Your task to perform on an android device: Clear the shopping cart on bestbuy.com. Add "razer blackwidow" to the cart on bestbuy.com, then select checkout. Image 0: 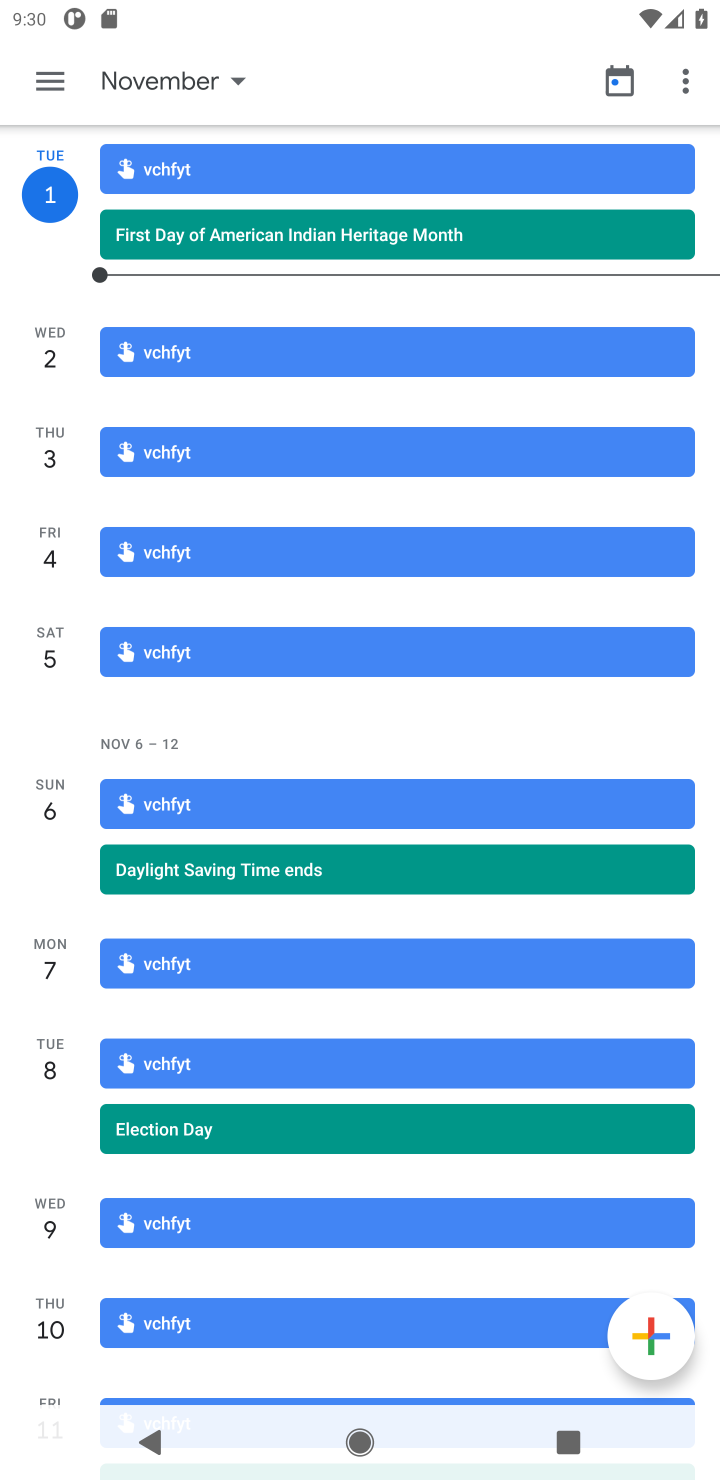
Step 0: press home button
Your task to perform on an android device: Clear the shopping cart on bestbuy.com. Add "razer blackwidow" to the cart on bestbuy.com, then select checkout. Image 1: 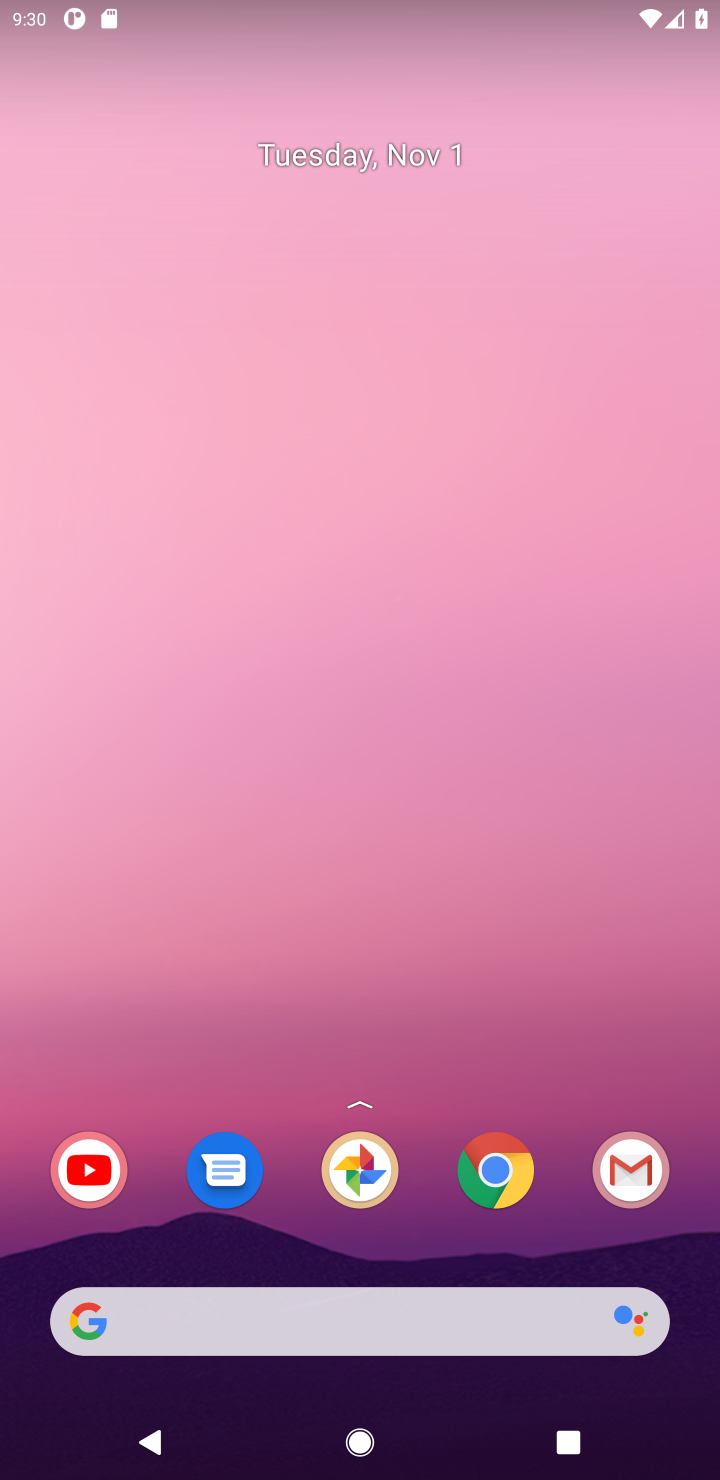
Step 1: click (493, 1177)
Your task to perform on an android device: Clear the shopping cart on bestbuy.com. Add "razer blackwidow" to the cart on bestbuy.com, then select checkout. Image 2: 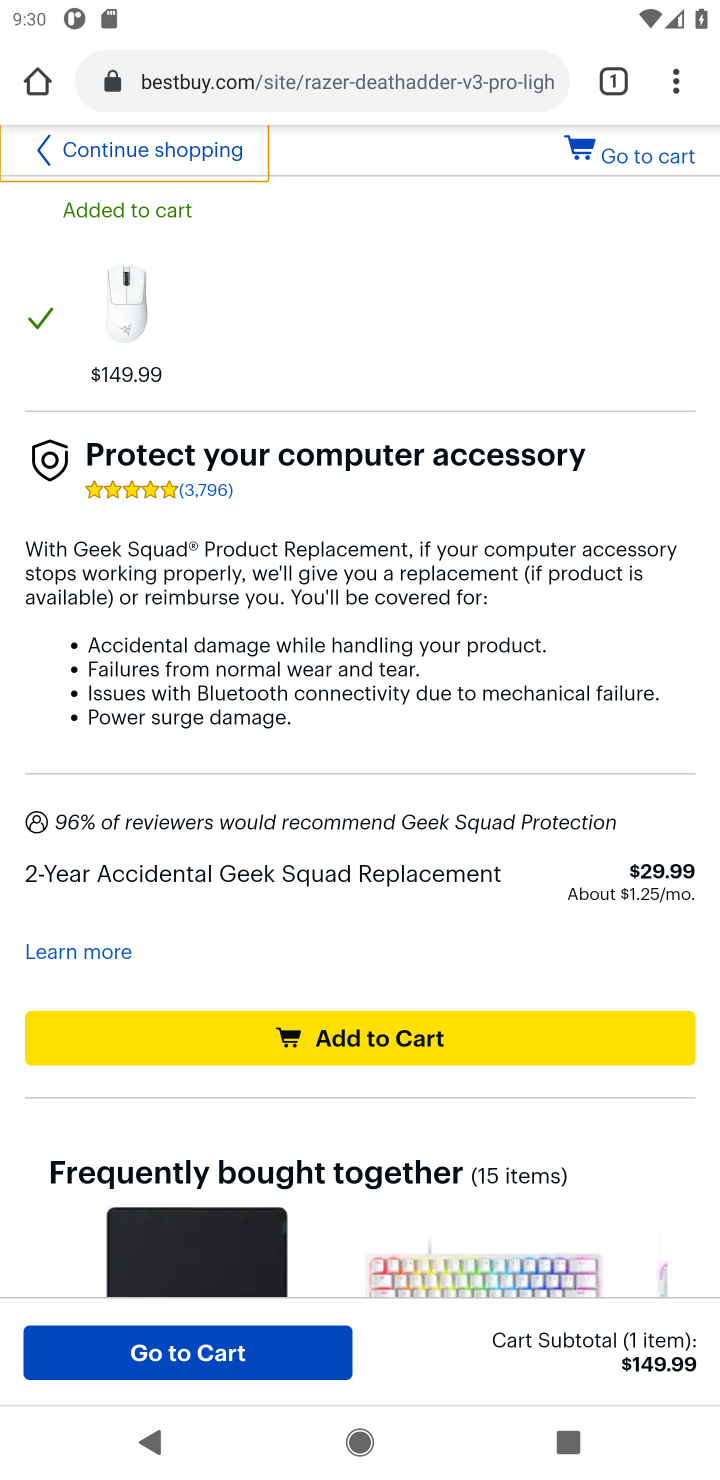
Step 2: click (335, 77)
Your task to perform on an android device: Clear the shopping cart on bestbuy.com. Add "razer blackwidow" to the cart on bestbuy.com, then select checkout. Image 3: 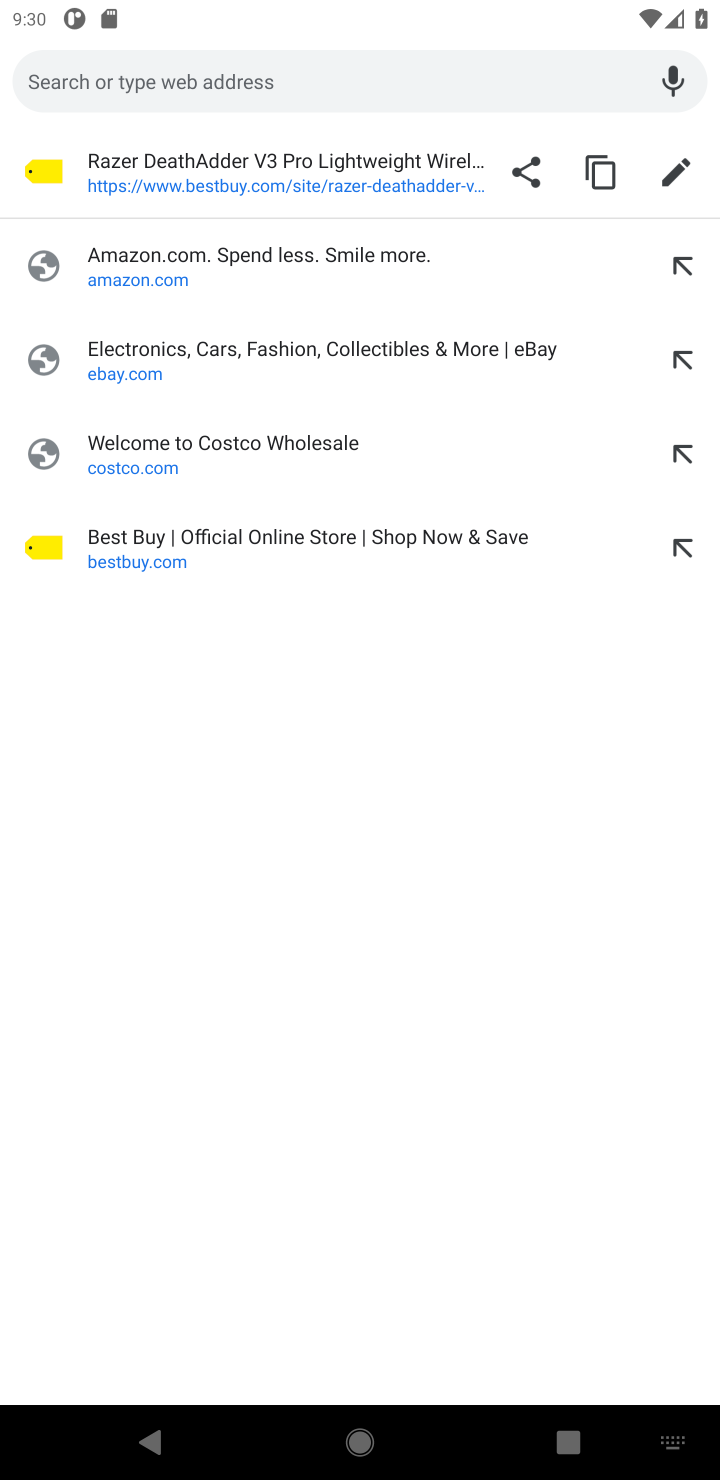
Step 3: type "bestbuy.com"
Your task to perform on an android device: Clear the shopping cart on bestbuy.com. Add "razer blackwidow" to the cart on bestbuy.com, then select checkout. Image 4: 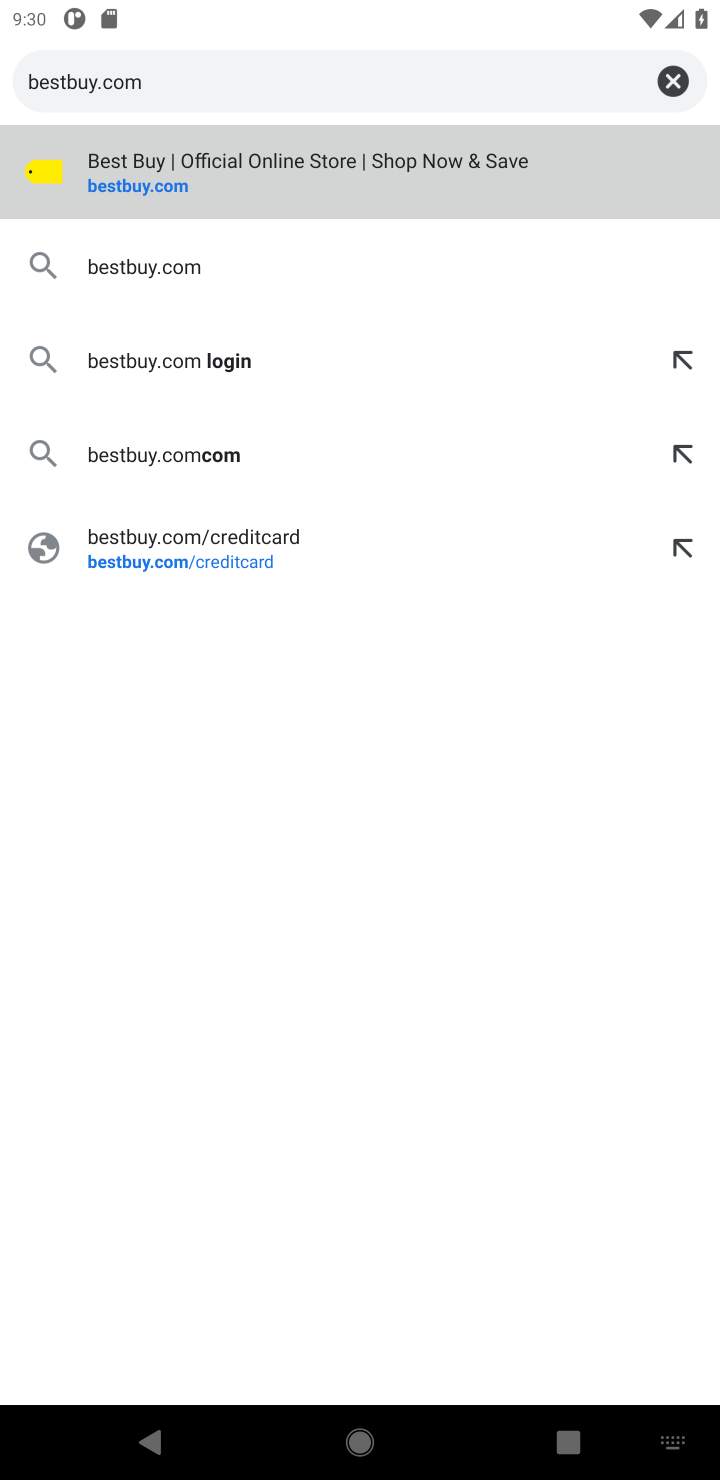
Step 4: type ""
Your task to perform on an android device: Clear the shopping cart on bestbuy.com. Add "razer blackwidow" to the cart on bestbuy.com, then select checkout. Image 5: 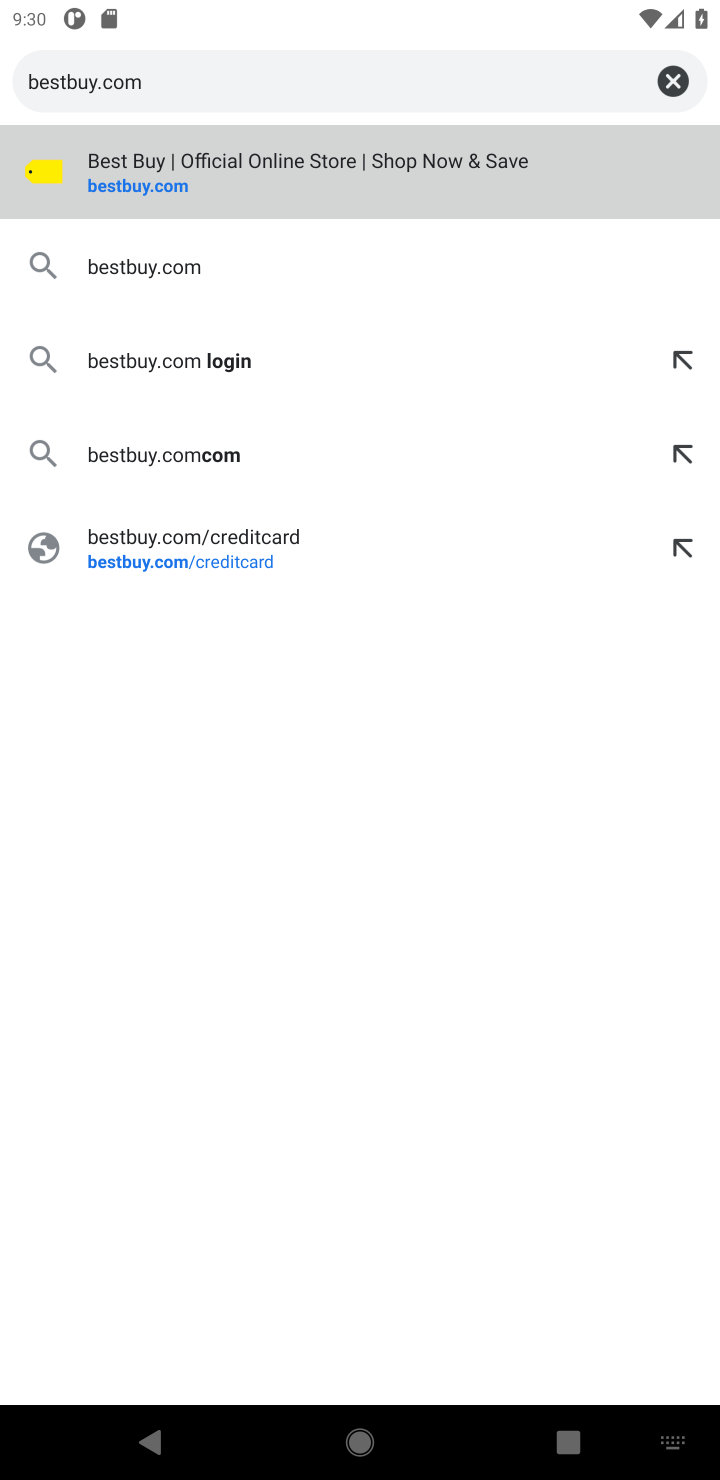
Step 5: press enter
Your task to perform on an android device: Clear the shopping cart on bestbuy.com. Add "razer blackwidow" to the cart on bestbuy.com, then select checkout. Image 6: 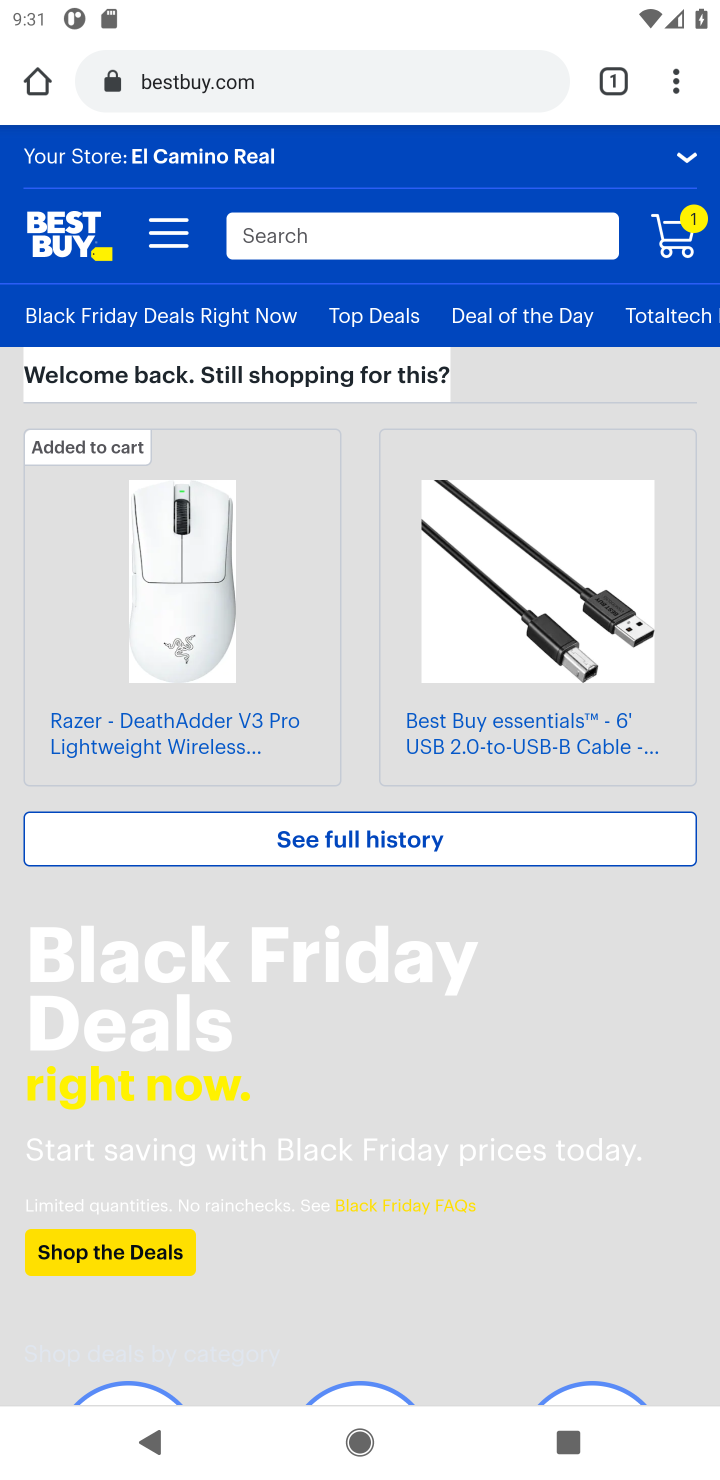
Step 6: click (694, 246)
Your task to perform on an android device: Clear the shopping cart on bestbuy.com. Add "razer blackwidow" to the cart on bestbuy.com, then select checkout. Image 7: 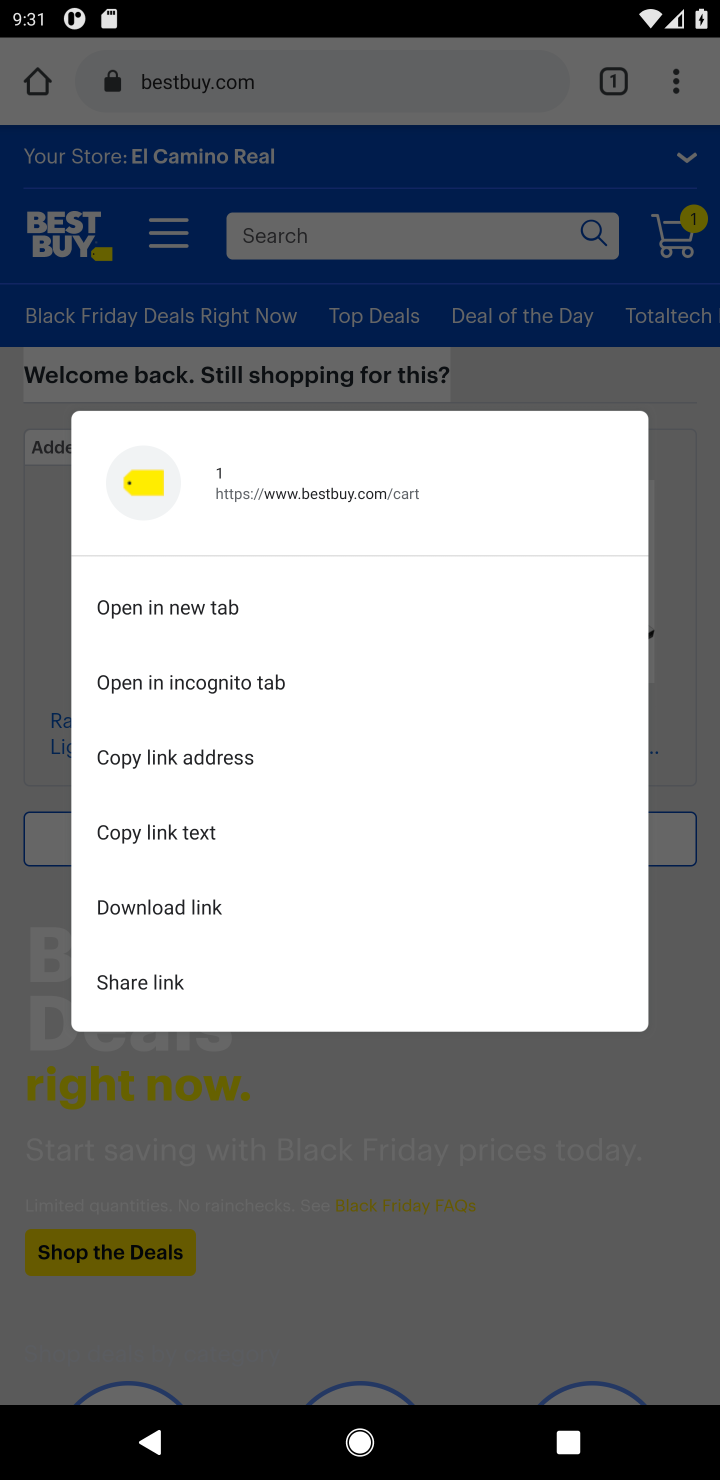
Step 7: click (680, 241)
Your task to perform on an android device: Clear the shopping cart on bestbuy.com. Add "razer blackwidow" to the cart on bestbuy.com, then select checkout. Image 8: 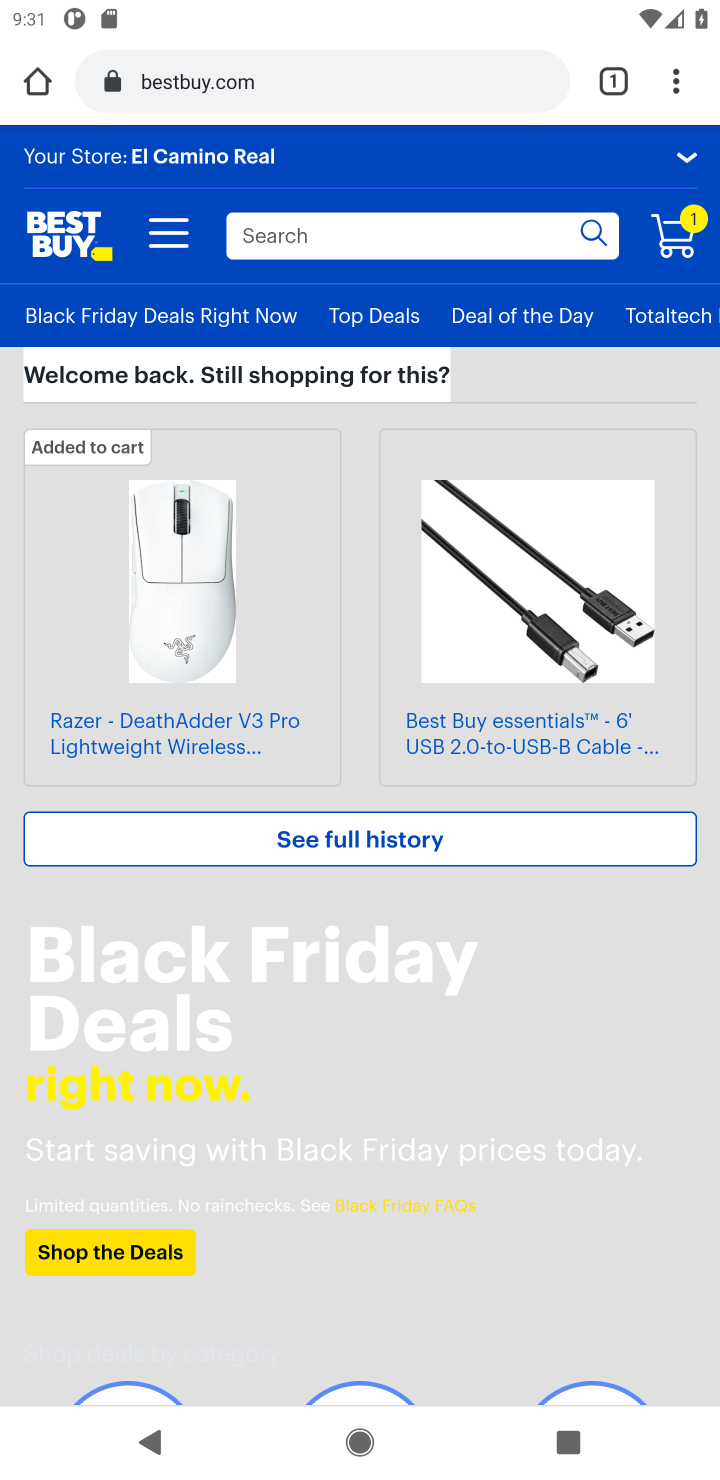
Step 8: click (680, 241)
Your task to perform on an android device: Clear the shopping cart on bestbuy.com. Add "razer blackwidow" to the cart on bestbuy.com, then select checkout. Image 9: 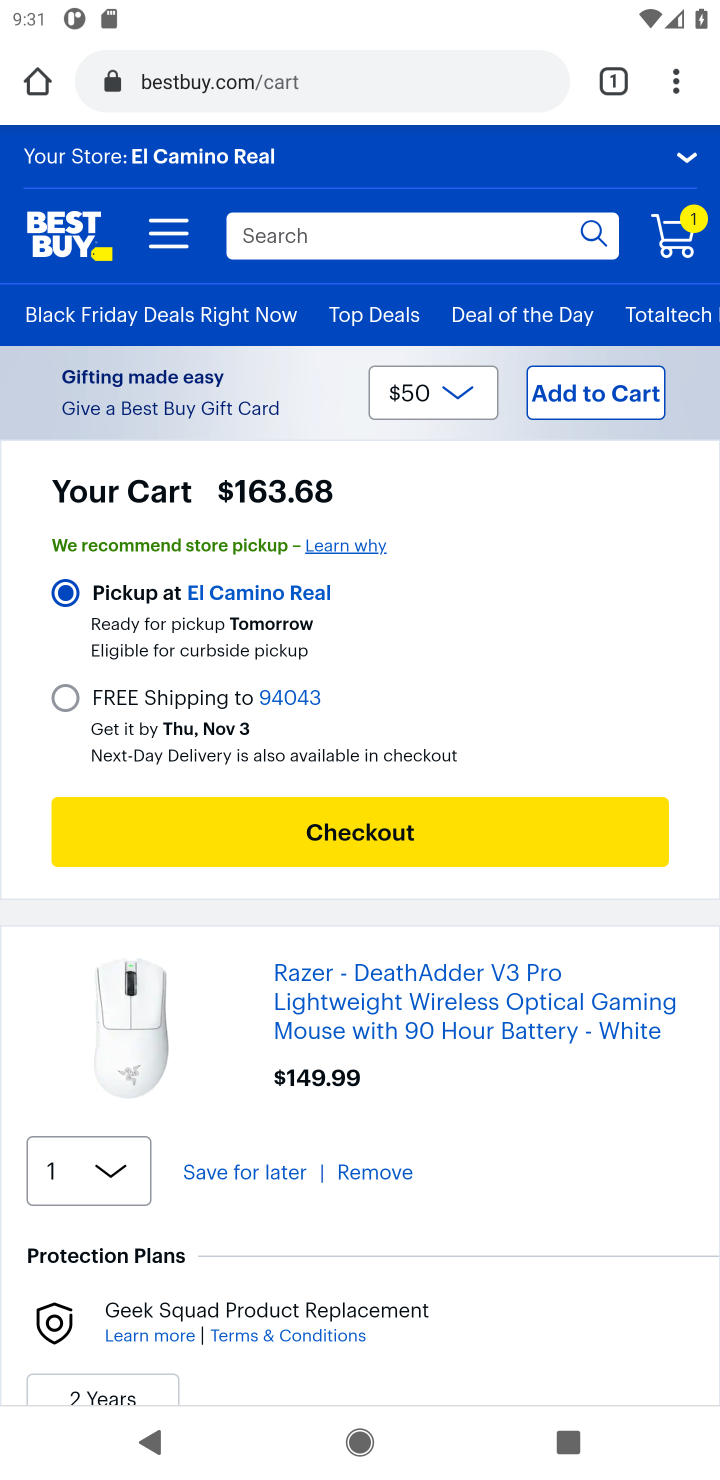
Step 9: click (377, 1165)
Your task to perform on an android device: Clear the shopping cart on bestbuy.com. Add "razer blackwidow" to the cart on bestbuy.com, then select checkout. Image 10: 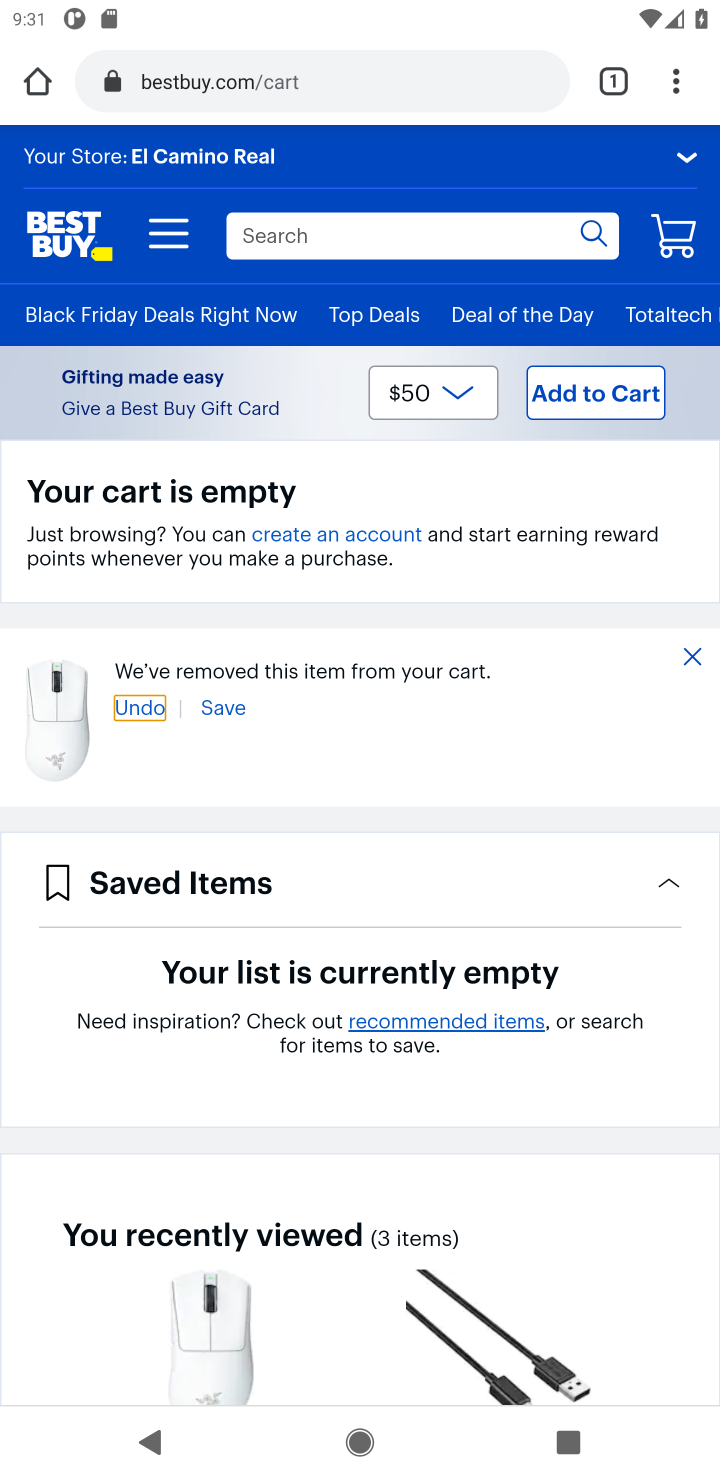
Step 10: click (377, 237)
Your task to perform on an android device: Clear the shopping cart on bestbuy.com. Add "razer blackwidow" to the cart on bestbuy.com, then select checkout. Image 11: 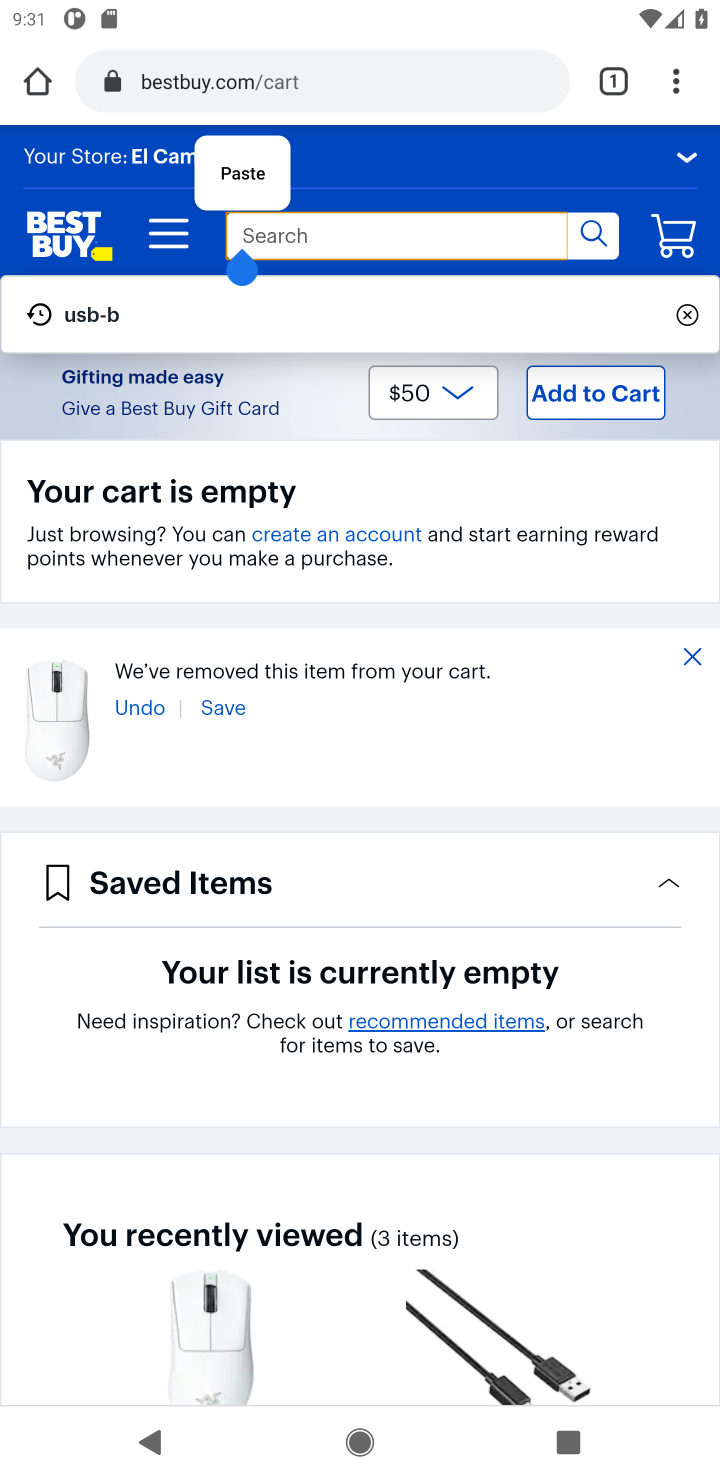
Step 11: type "razer blackwidow"
Your task to perform on an android device: Clear the shopping cart on bestbuy.com. Add "razer blackwidow" to the cart on bestbuy.com, then select checkout. Image 12: 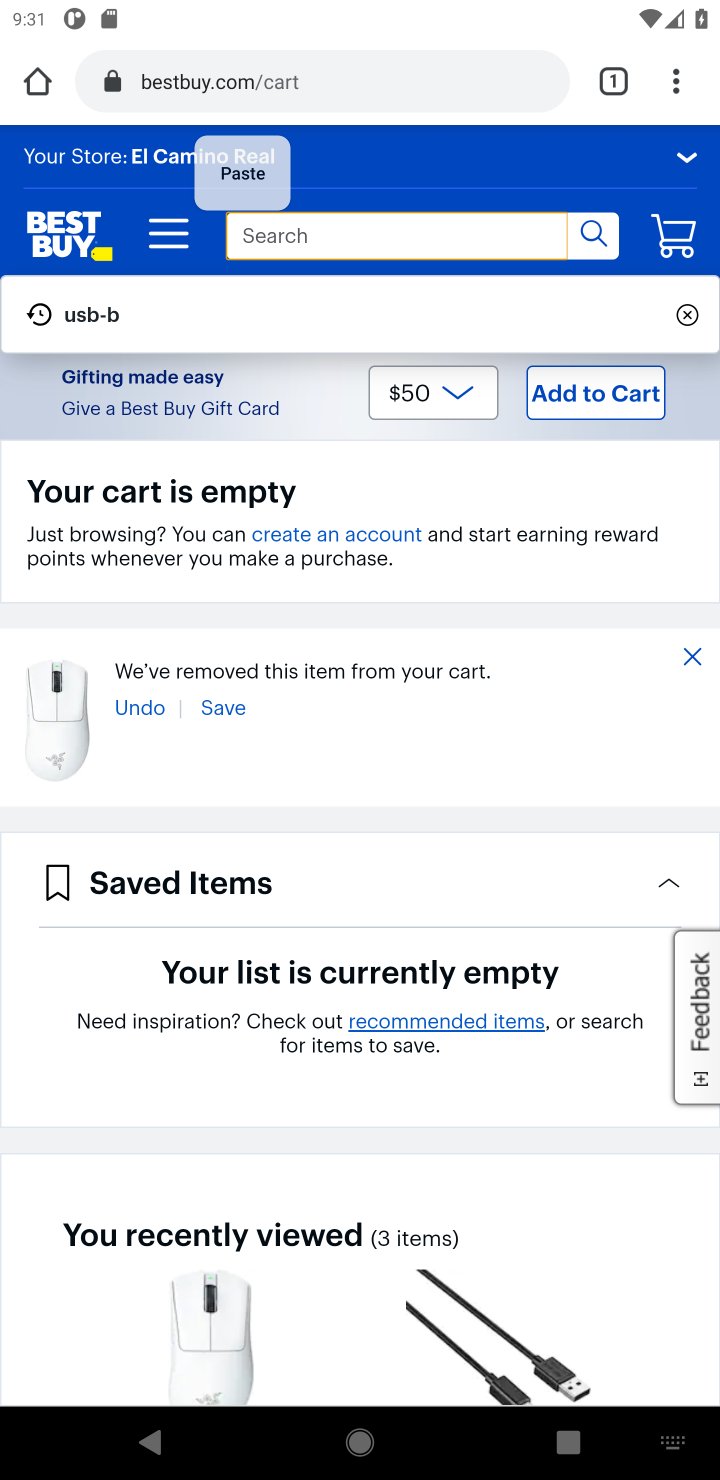
Step 12: type ""
Your task to perform on an android device: Clear the shopping cart on bestbuy.com. Add "razer blackwidow" to the cart on bestbuy.com, then select checkout. Image 13: 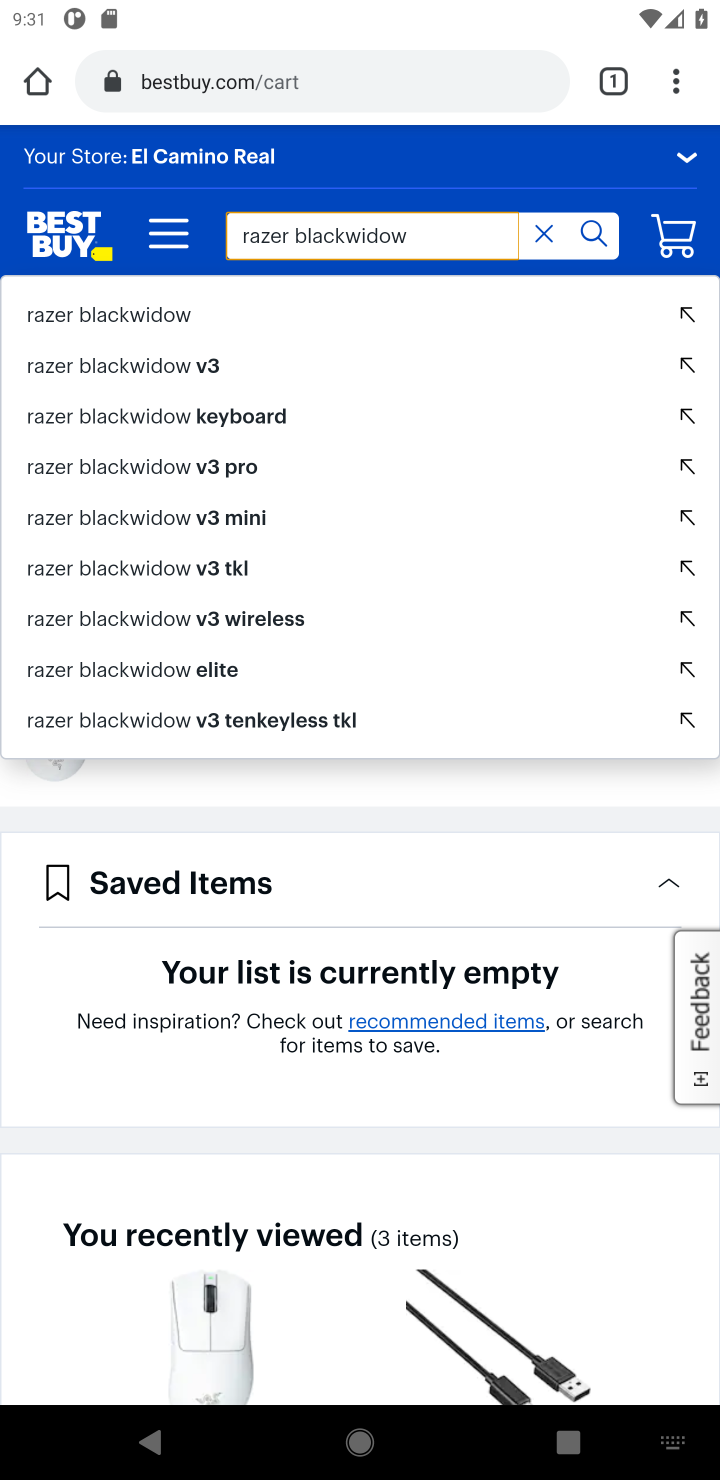
Step 13: press enter
Your task to perform on an android device: Clear the shopping cart on bestbuy.com. Add "razer blackwidow" to the cart on bestbuy.com, then select checkout. Image 14: 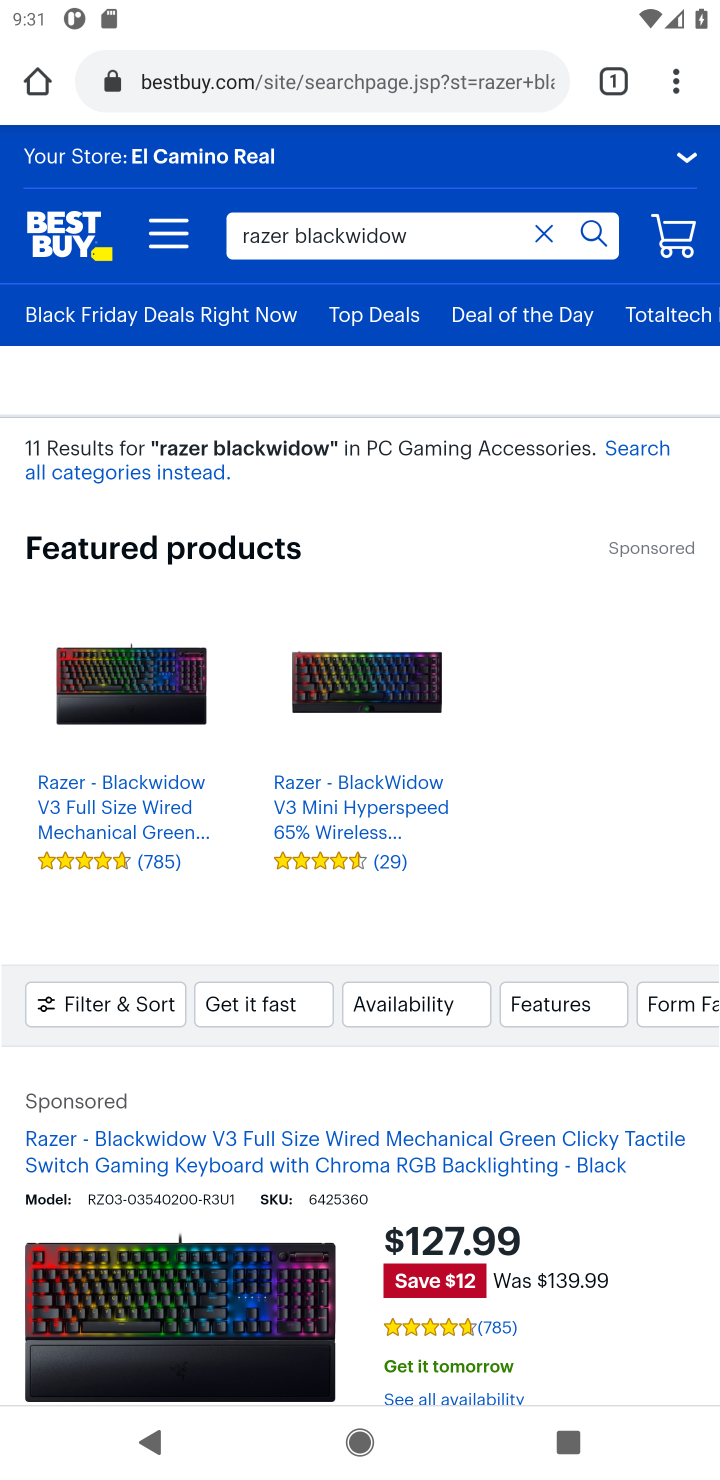
Step 14: click (330, 1144)
Your task to perform on an android device: Clear the shopping cart on bestbuy.com. Add "razer blackwidow" to the cart on bestbuy.com, then select checkout. Image 15: 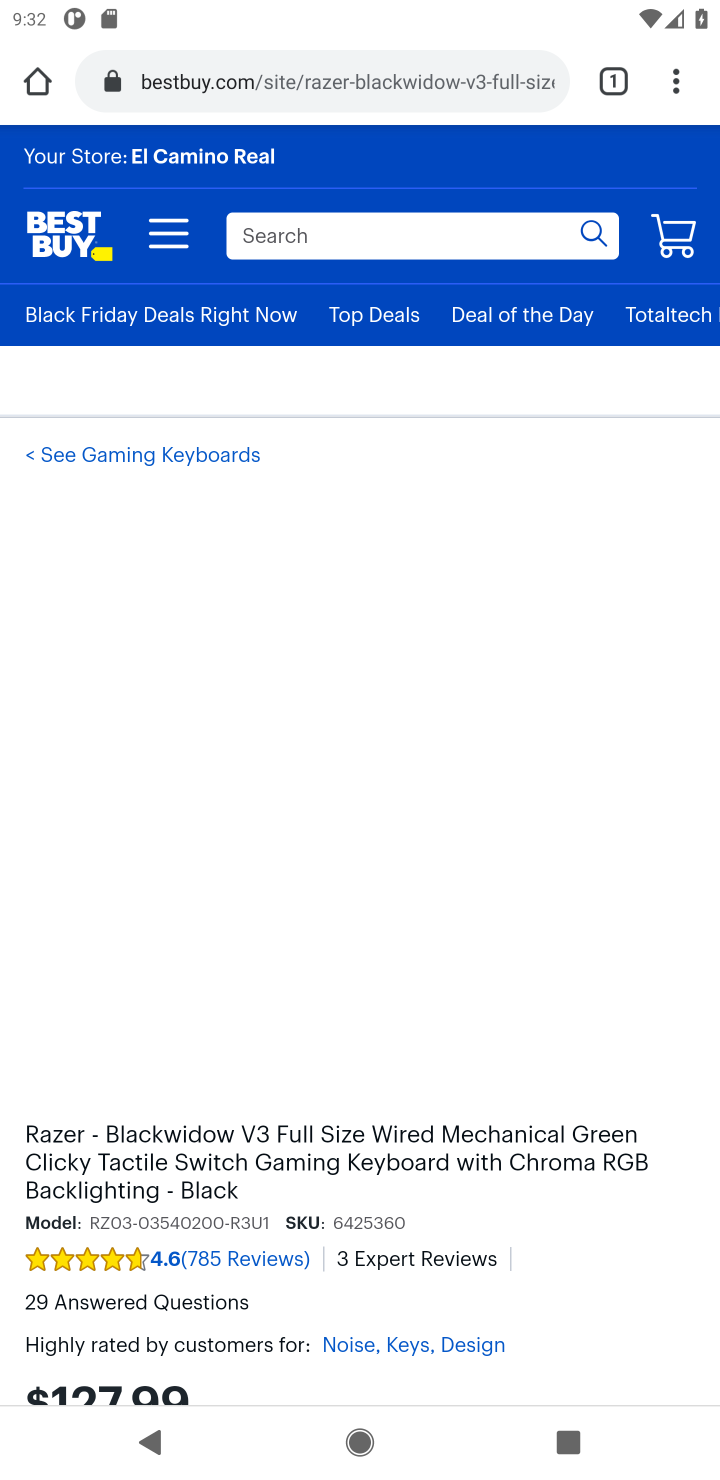
Step 15: drag from (252, 1099) to (167, 530)
Your task to perform on an android device: Clear the shopping cart on bestbuy.com. Add "razer blackwidow" to the cart on bestbuy.com, then select checkout. Image 16: 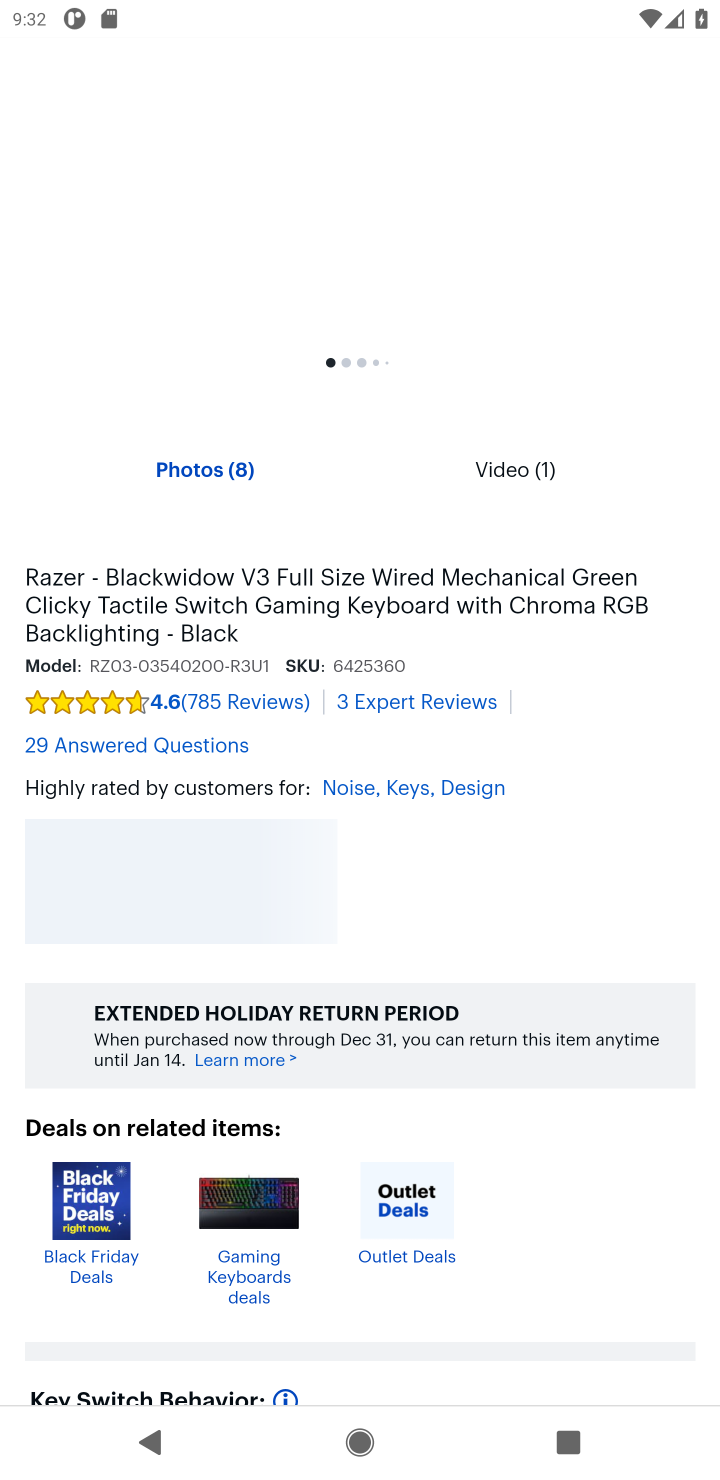
Step 16: drag from (435, 1166) to (328, 324)
Your task to perform on an android device: Clear the shopping cart on bestbuy.com. Add "razer blackwidow" to the cart on bestbuy.com, then select checkout. Image 17: 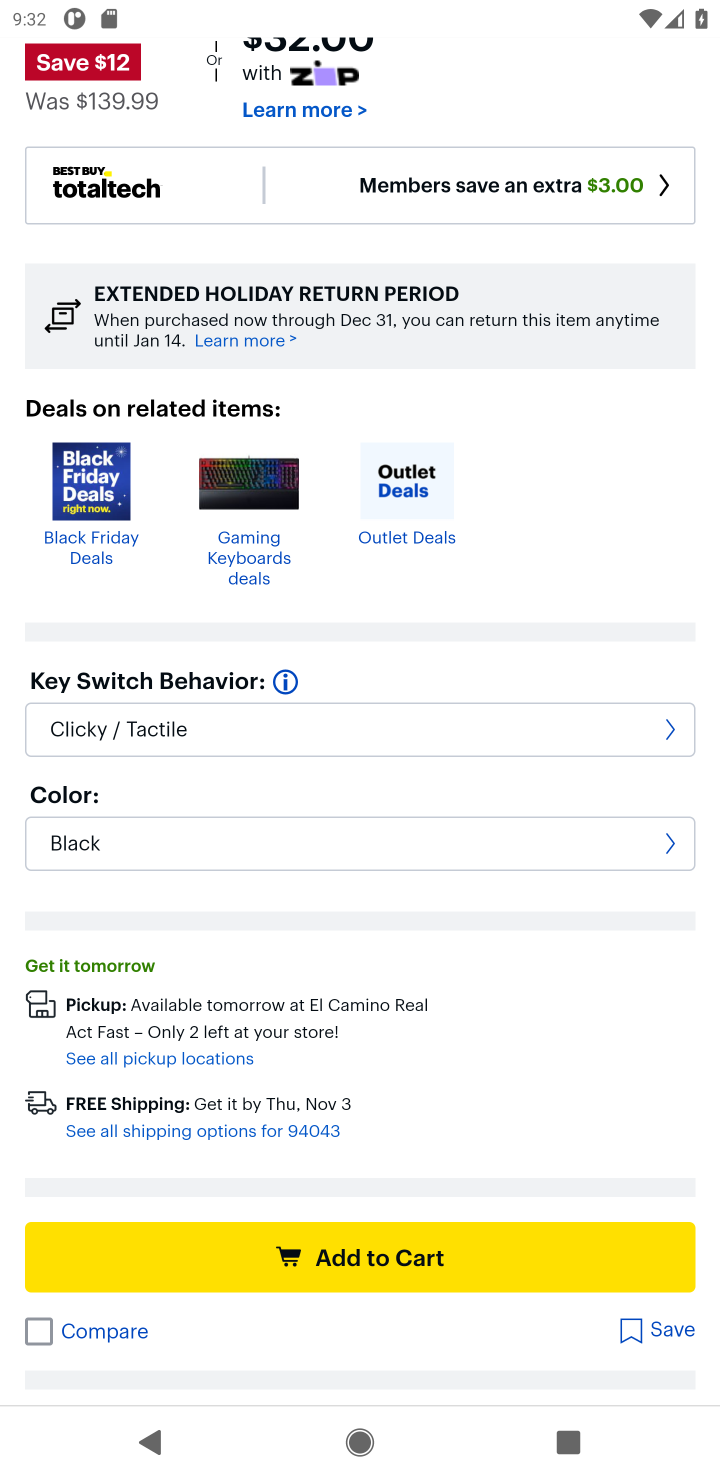
Step 17: click (488, 1270)
Your task to perform on an android device: Clear the shopping cart on bestbuy.com. Add "razer blackwidow" to the cart on bestbuy.com, then select checkout. Image 18: 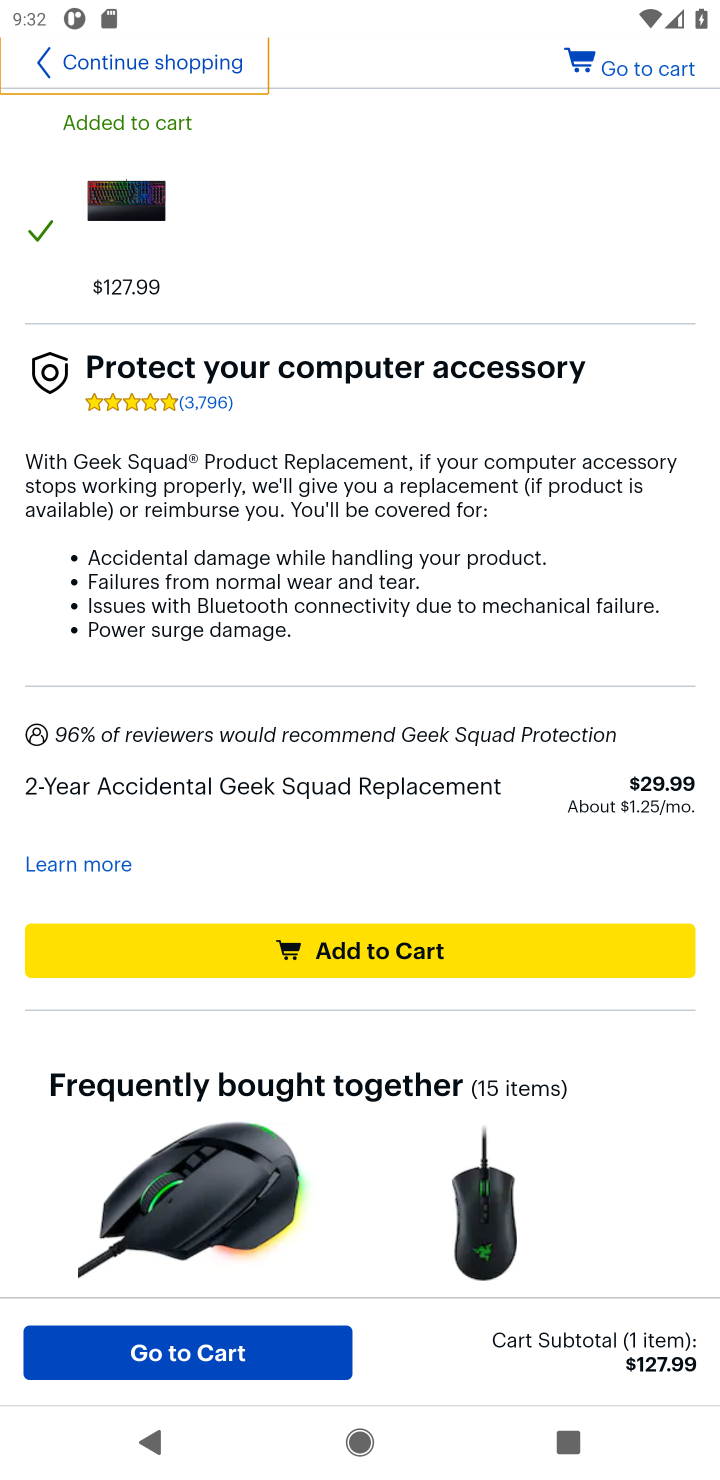
Step 18: click (196, 1363)
Your task to perform on an android device: Clear the shopping cart on bestbuy.com. Add "razer blackwidow" to the cart on bestbuy.com, then select checkout. Image 19: 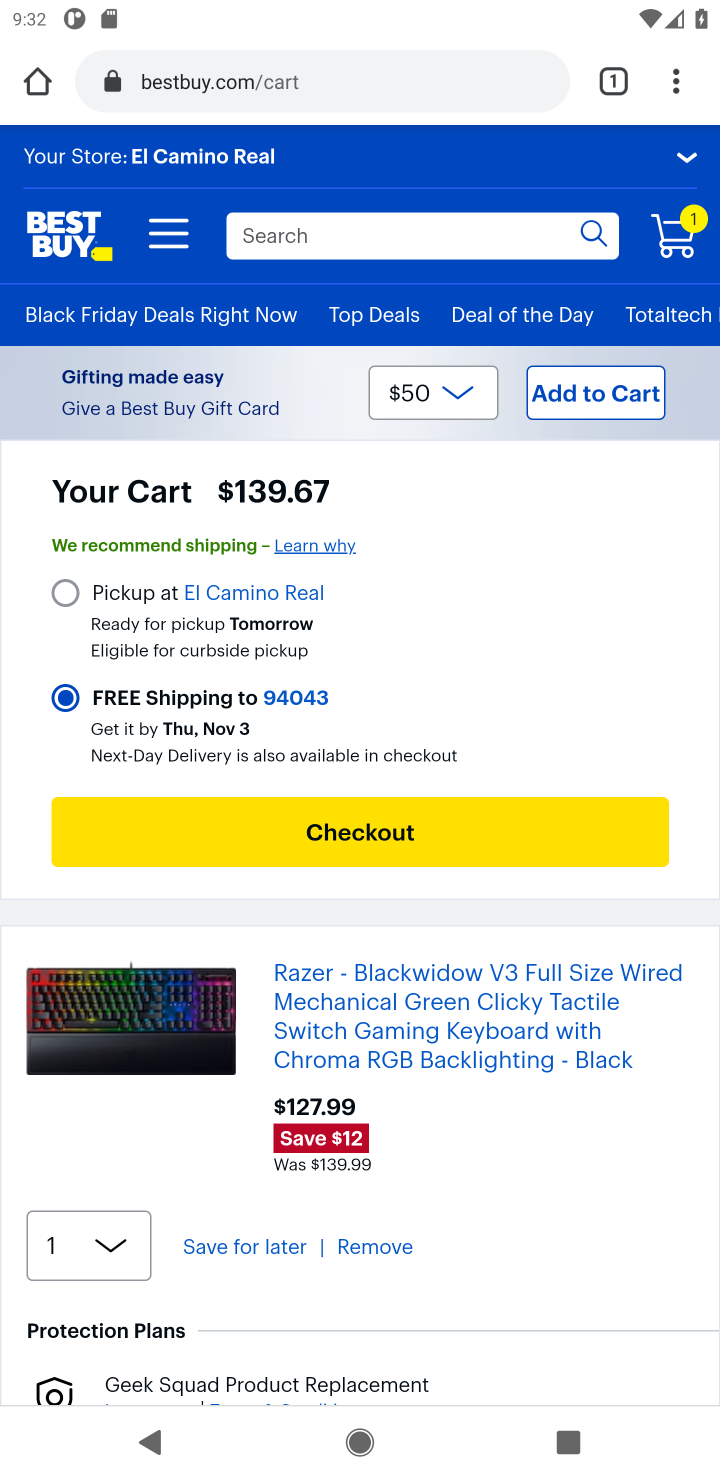
Step 19: click (529, 824)
Your task to perform on an android device: Clear the shopping cart on bestbuy.com. Add "razer blackwidow" to the cart on bestbuy.com, then select checkout. Image 20: 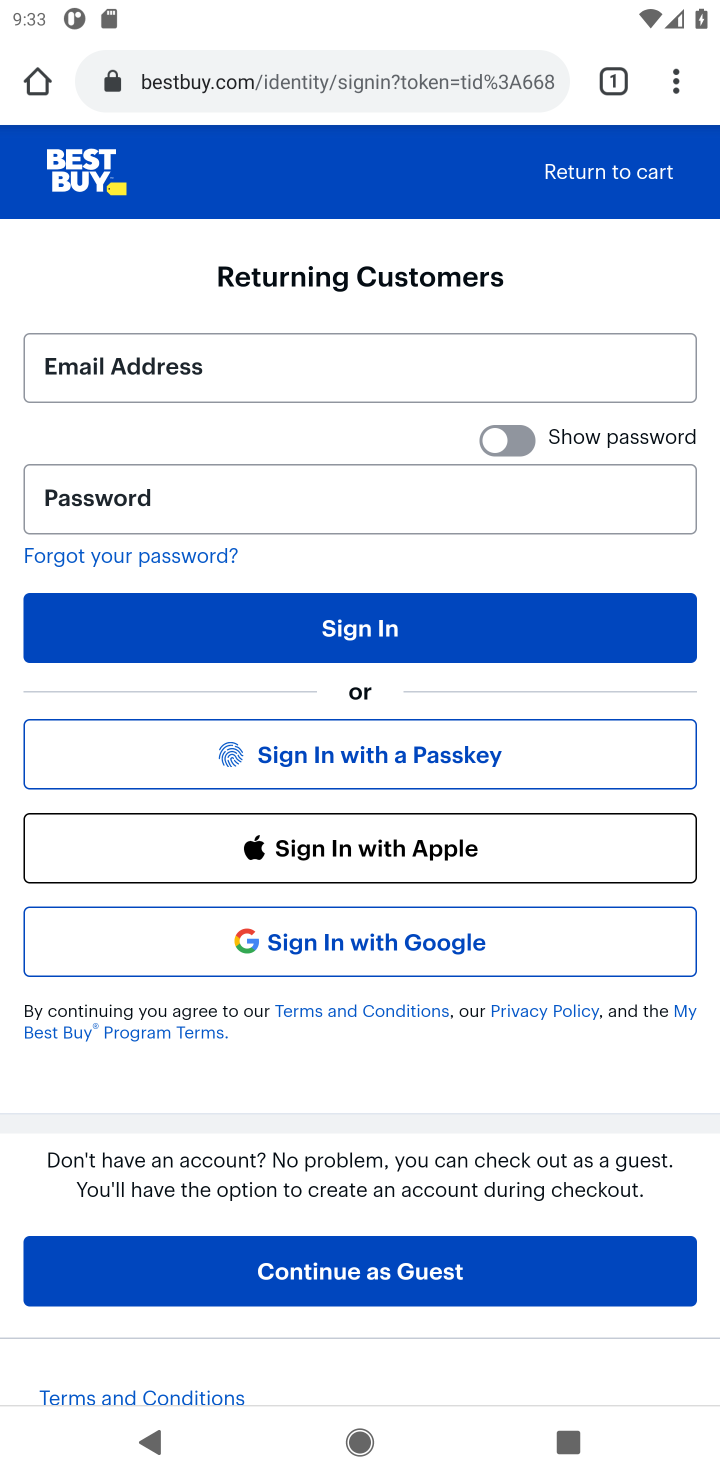
Step 20: task complete